Your task to perform on an android device: delete location history Image 0: 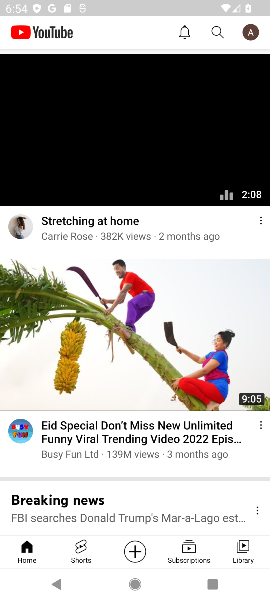
Step 0: press home button
Your task to perform on an android device: delete location history Image 1: 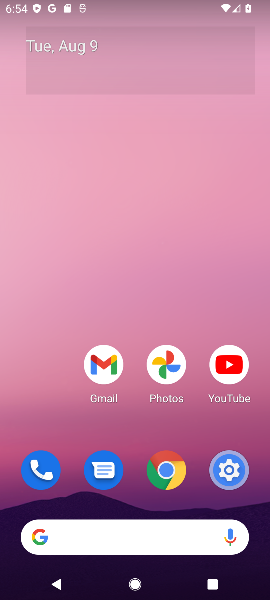
Step 1: drag from (151, 578) to (162, 238)
Your task to perform on an android device: delete location history Image 2: 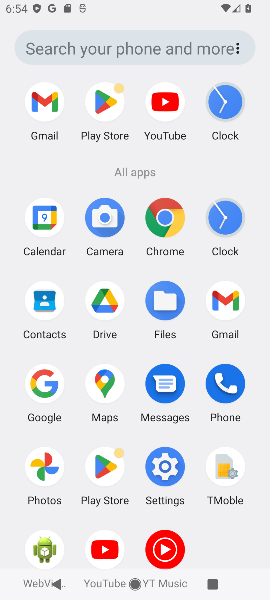
Step 2: click (116, 388)
Your task to perform on an android device: delete location history Image 3: 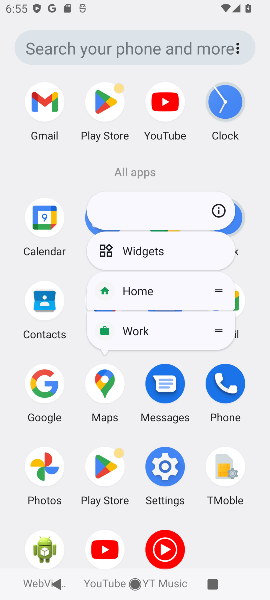
Step 3: click (114, 387)
Your task to perform on an android device: delete location history Image 4: 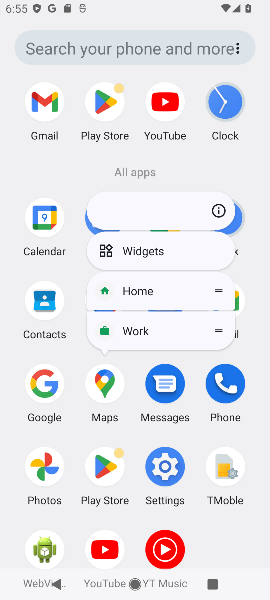
Step 4: click (114, 393)
Your task to perform on an android device: delete location history Image 5: 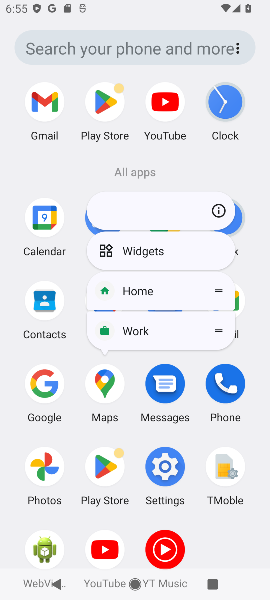
Step 5: click (114, 393)
Your task to perform on an android device: delete location history Image 6: 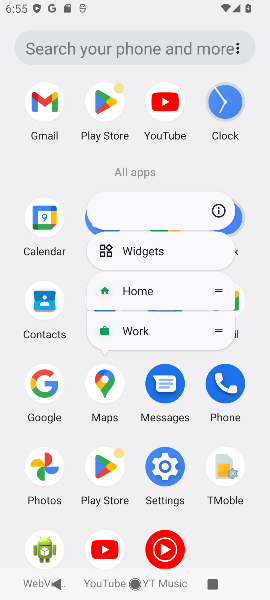
Step 6: click (114, 393)
Your task to perform on an android device: delete location history Image 7: 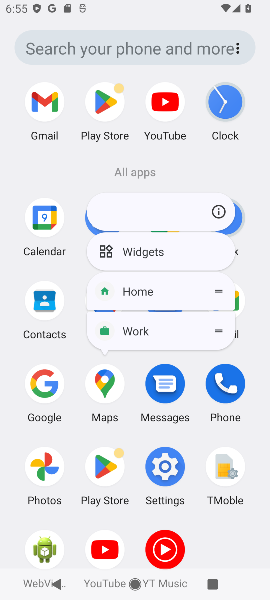
Step 7: click (114, 393)
Your task to perform on an android device: delete location history Image 8: 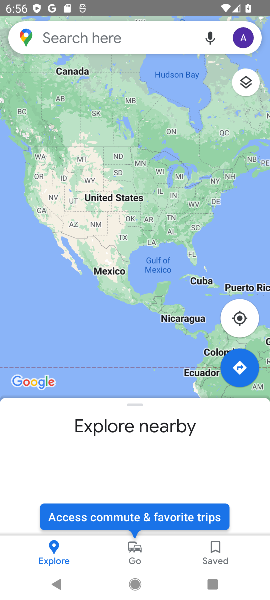
Step 8: click (24, 43)
Your task to perform on an android device: delete location history Image 9: 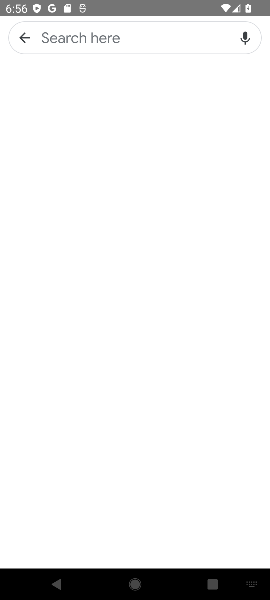
Step 9: task complete